Your task to perform on an android device: Open my contact list Image 0: 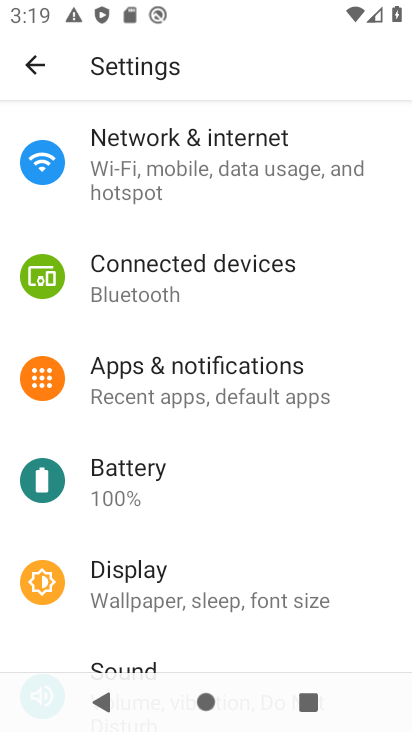
Step 0: press home button
Your task to perform on an android device: Open my contact list Image 1: 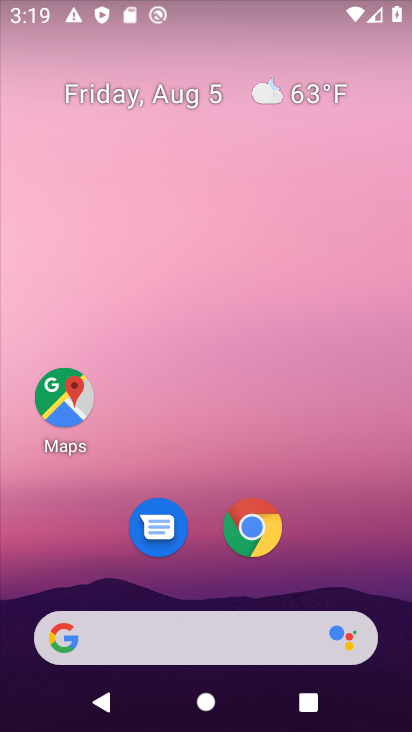
Step 1: drag from (222, 595) to (187, 84)
Your task to perform on an android device: Open my contact list Image 2: 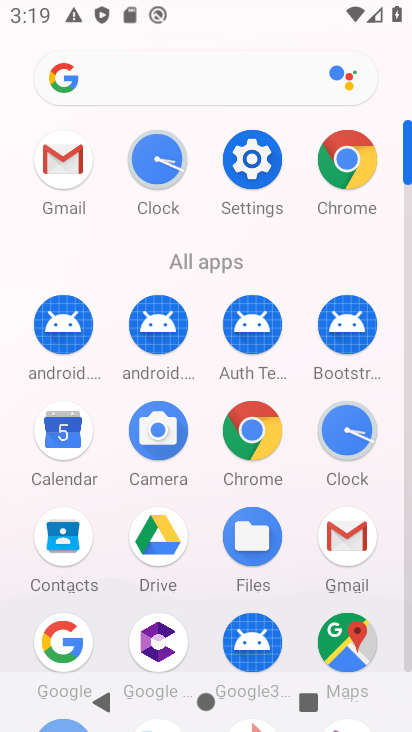
Step 2: click (57, 541)
Your task to perform on an android device: Open my contact list Image 3: 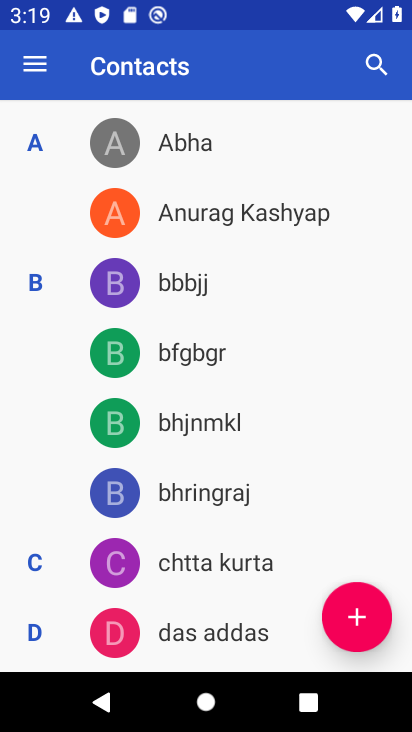
Step 3: task complete